Your task to perform on an android device: turn pop-ups on in chrome Image 0: 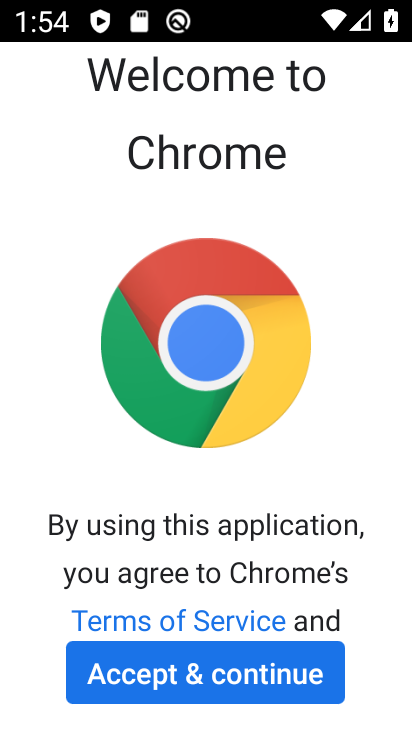
Step 0: press home button
Your task to perform on an android device: turn pop-ups on in chrome Image 1: 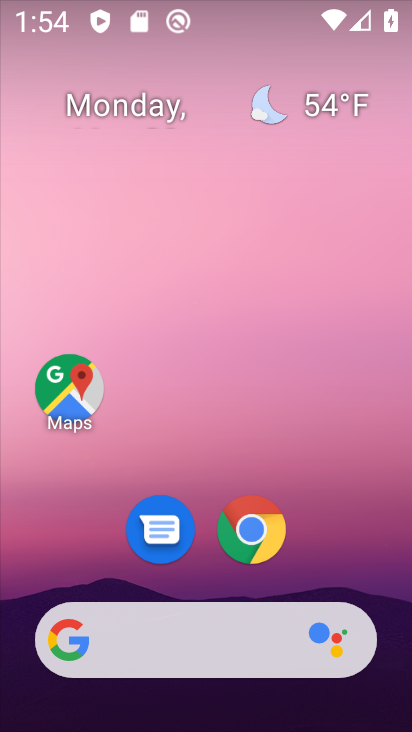
Step 1: click (274, 551)
Your task to perform on an android device: turn pop-ups on in chrome Image 2: 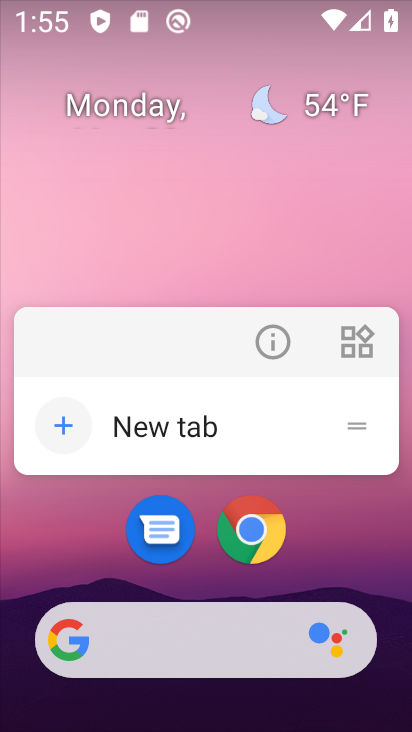
Step 2: click (271, 538)
Your task to perform on an android device: turn pop-ups on in chrome Image 3: 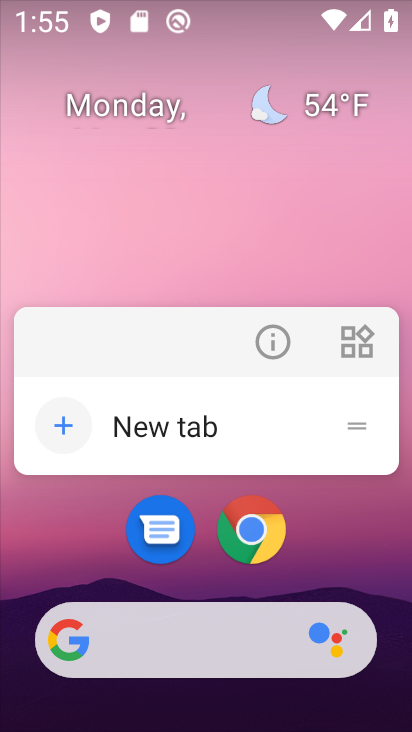
Step 3: click (263, 529)
Your task to perform on an android device: turn pop-ups on in chrome Image 4: 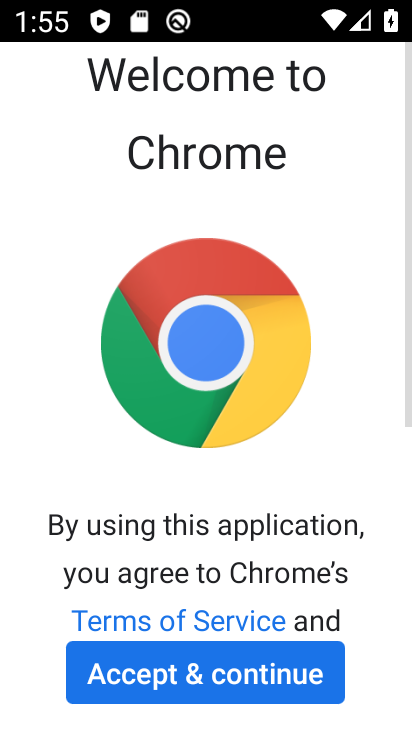
Step 4: click (248, 676)
Your task to perform on an android device: turn pop-ups on in chrome Image 5: 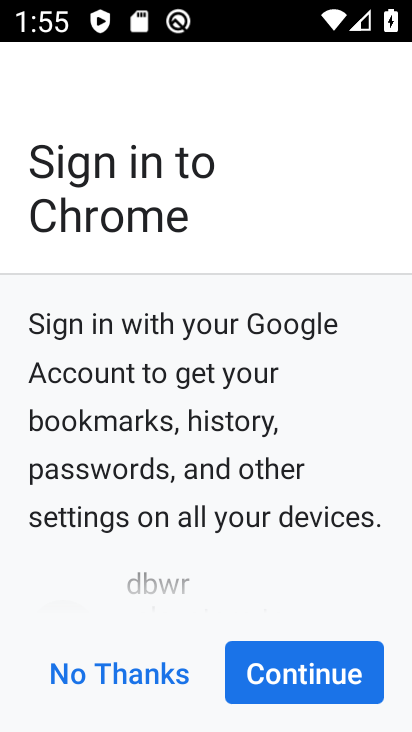
Step 5: click (313, 687)
Your task to perform on an android device: turn pop-ups on in chrome Image 6: 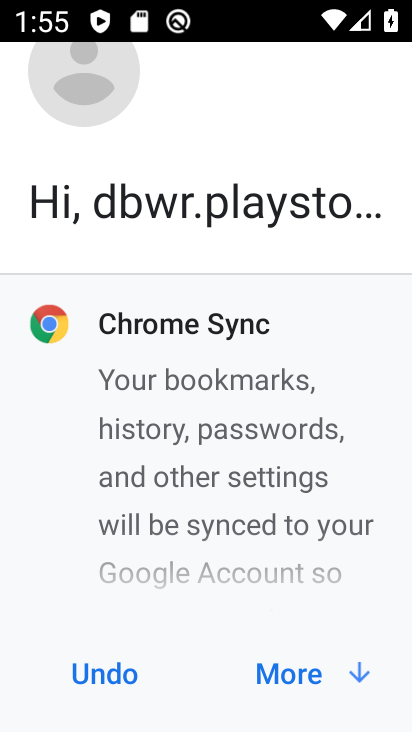
Step 6: click (313, 687)
Your task to perform on an android device: turn pop-ups on in chrome Image 7: 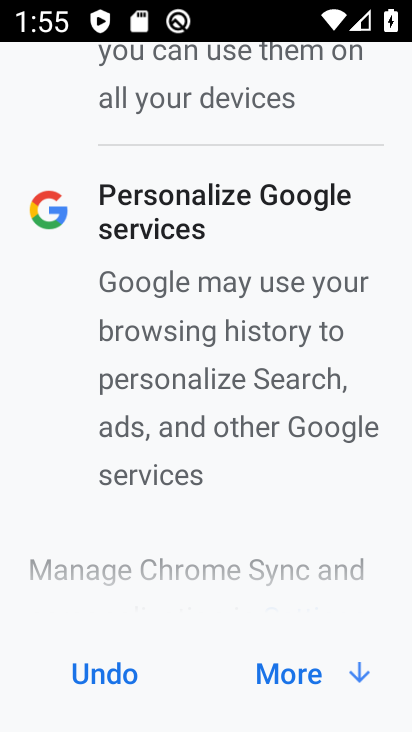
Step 7: click (313, 687)
Your task to perform on an android device: turn pop-ups on in chrome Image 8: 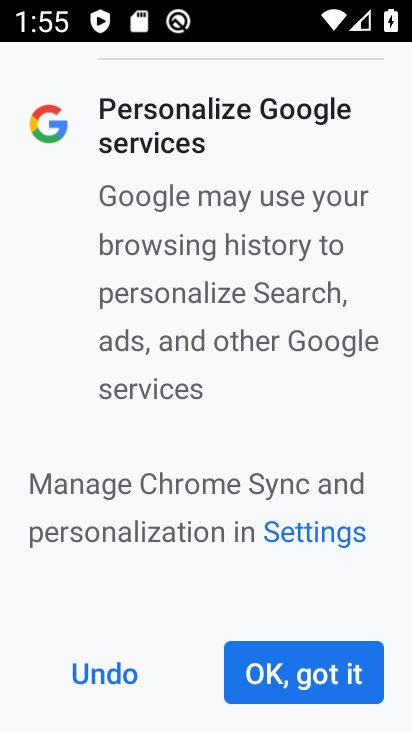
Step 8: click (313, 687)
Your task to perform on an android device: turn pop-ups on in chrome Image 9: 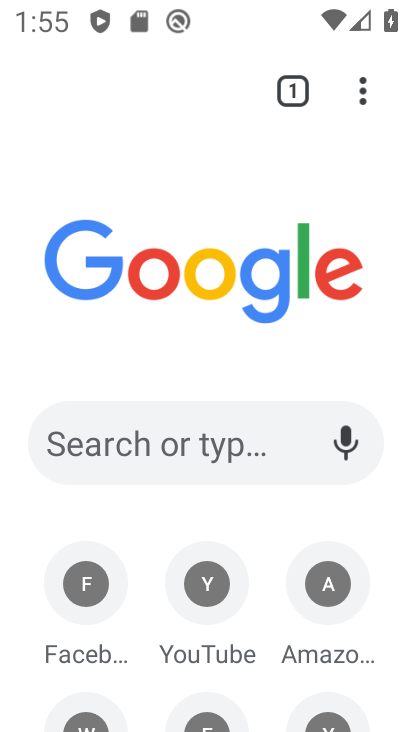
Step 9: drag from (371, 93) to (239, 564)
Your task to perform on an android device: turn pop-ups on in chrome Image 10: 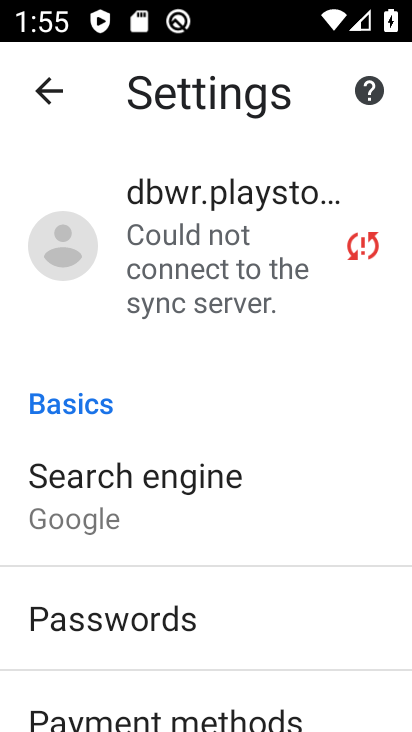
Step 10: drag from (197, 653) to (304, 253)
Your task to perform on an android device: turn pop-ups on in chrome Image 11: 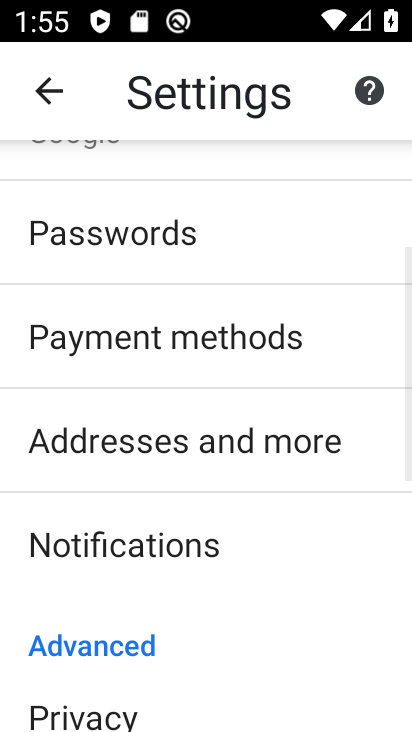
Step 11: drag from (221, 648) to (319, 296)
Your task to perform on an android device: turn pop-ups on in chrome Image 12: 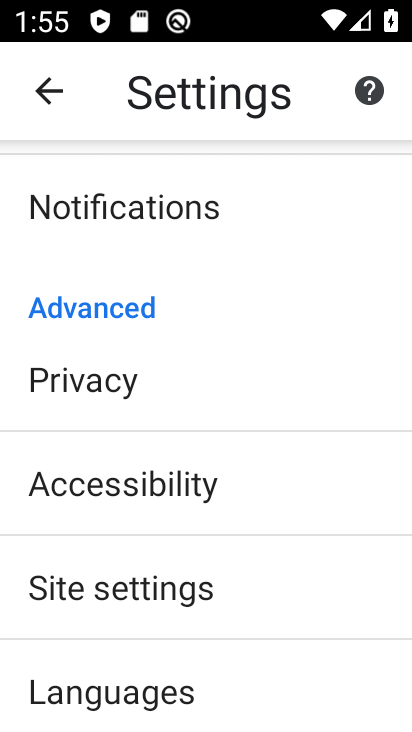
Step 12: click (201, 585)
Your task to perform on an android device: turn pop-ups on in chrome Image 13: 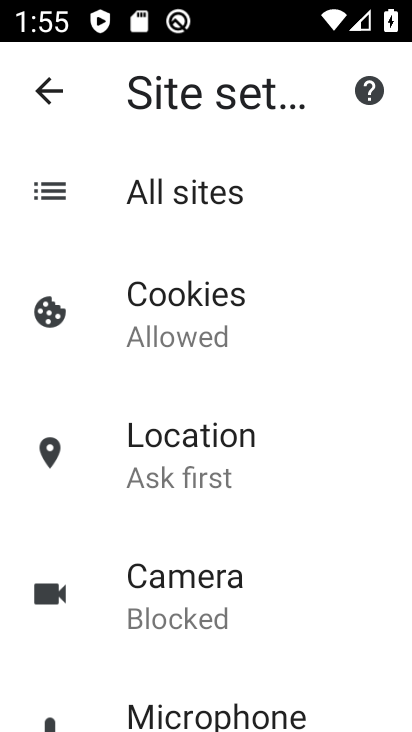
Step 13: drag from (235, 556) to (319, 217)
Your task to perform on an android device: turn pop-ups on in chrome Image 14: 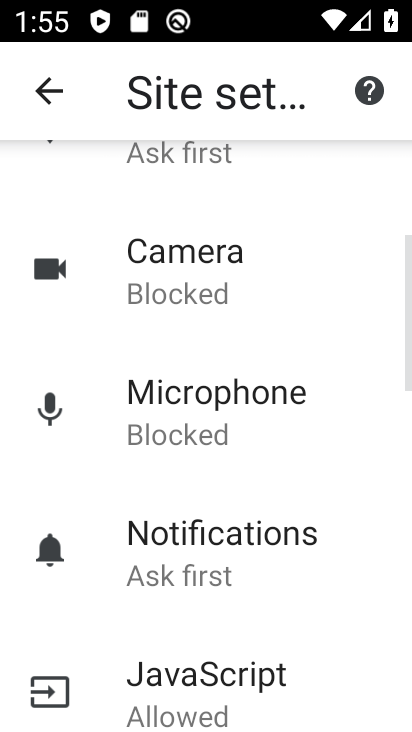
Step 14: drag from (183, 677) to (315, 296)
Your task to perform on an android device: turn pop-ups on in chrome Image 15: 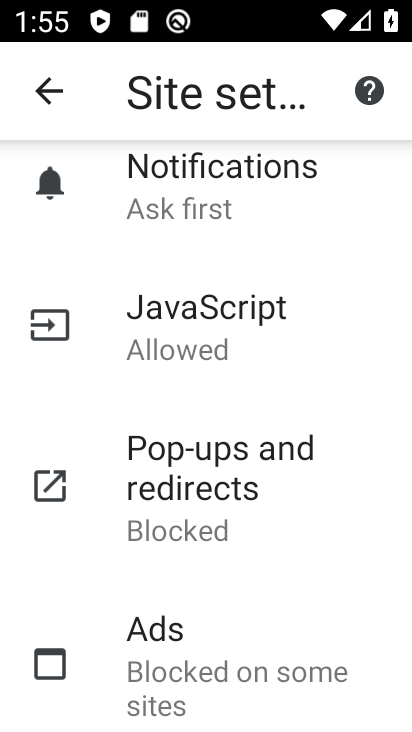
Step 15: click (297, 463)
Your task to perform on an android device: turn pop-ups on in chrome Image 16: 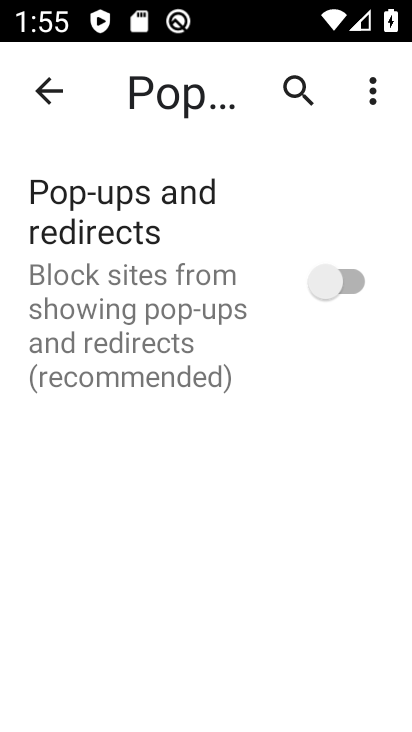
Step 16: click (377, 285)
Your task to perform on an android device: turn pop-ups on in chrome Image 17: 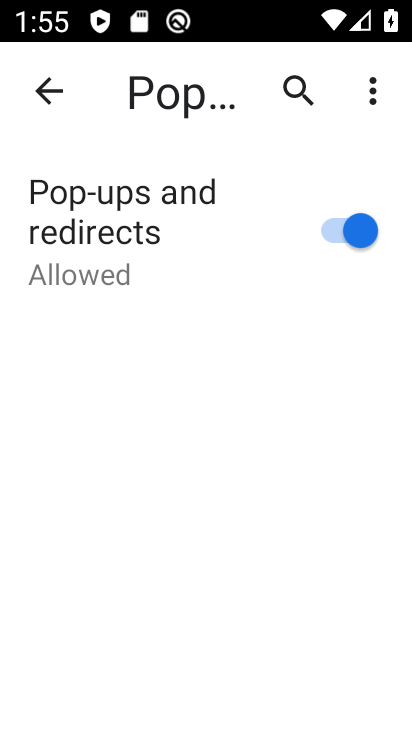
Step 17: task complete